Your task to perform on an android device: visit the assistant section in the google photos Image 0: 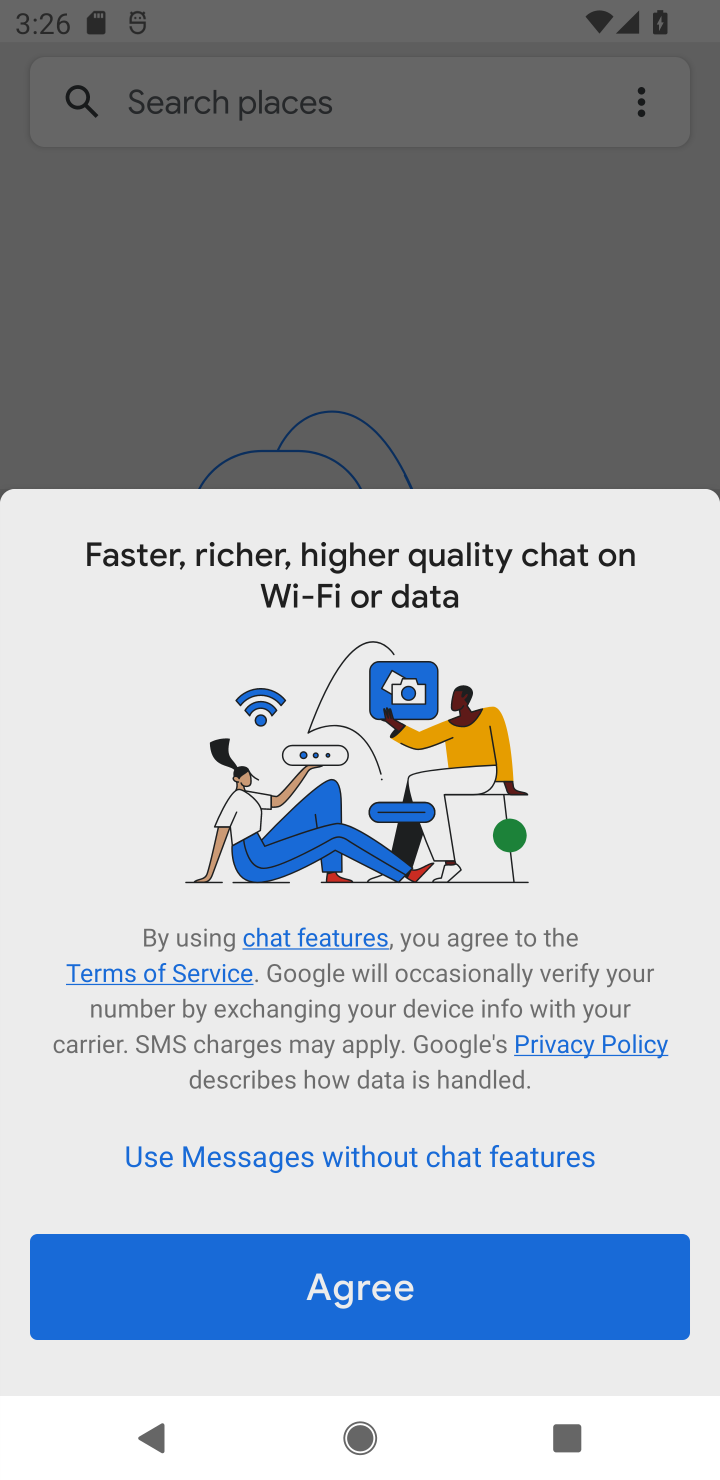
Step 0: press back button
Your task to perform on an android device: visit the assistant section in the google photos Image 1: 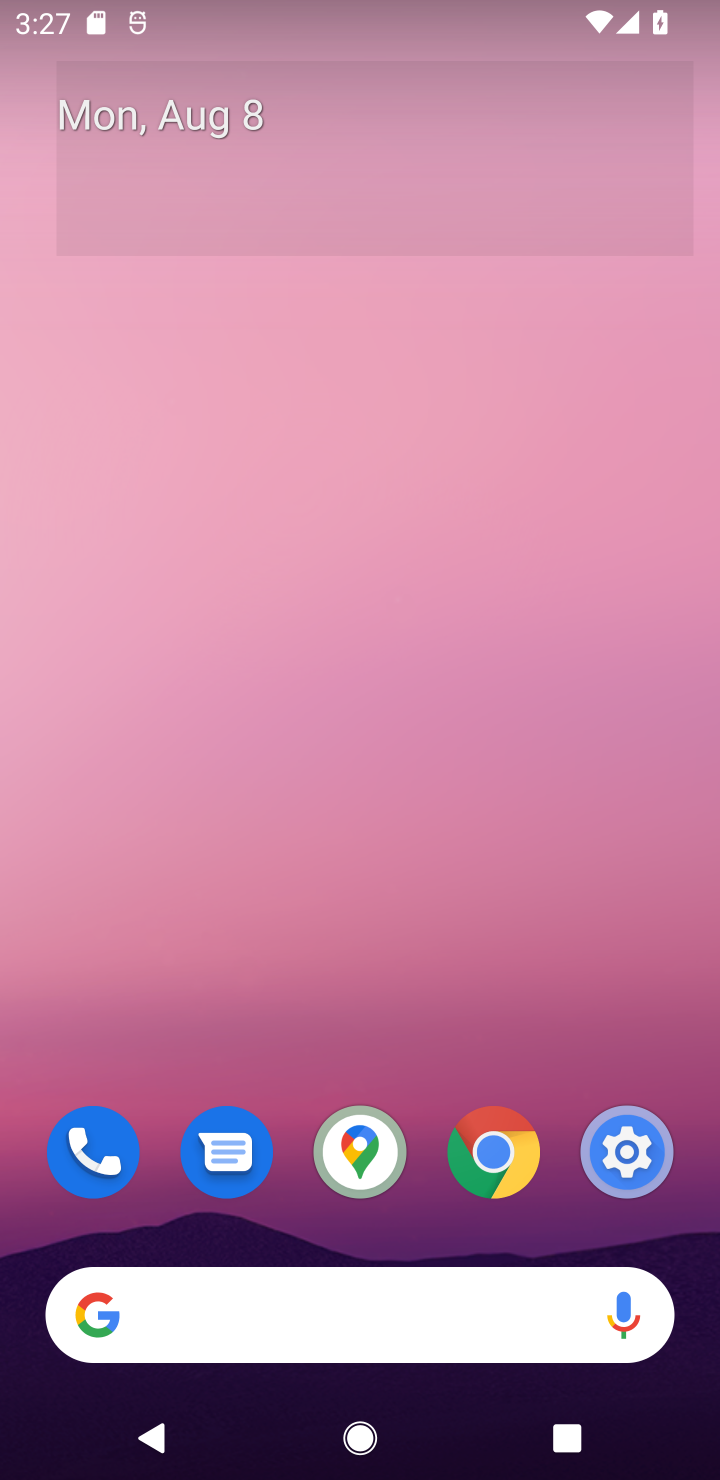
Step 1: drag from (316, 1232) to (332, 220)
Your task to perform on an android device: visit the assistant section in the google photos Image 2: 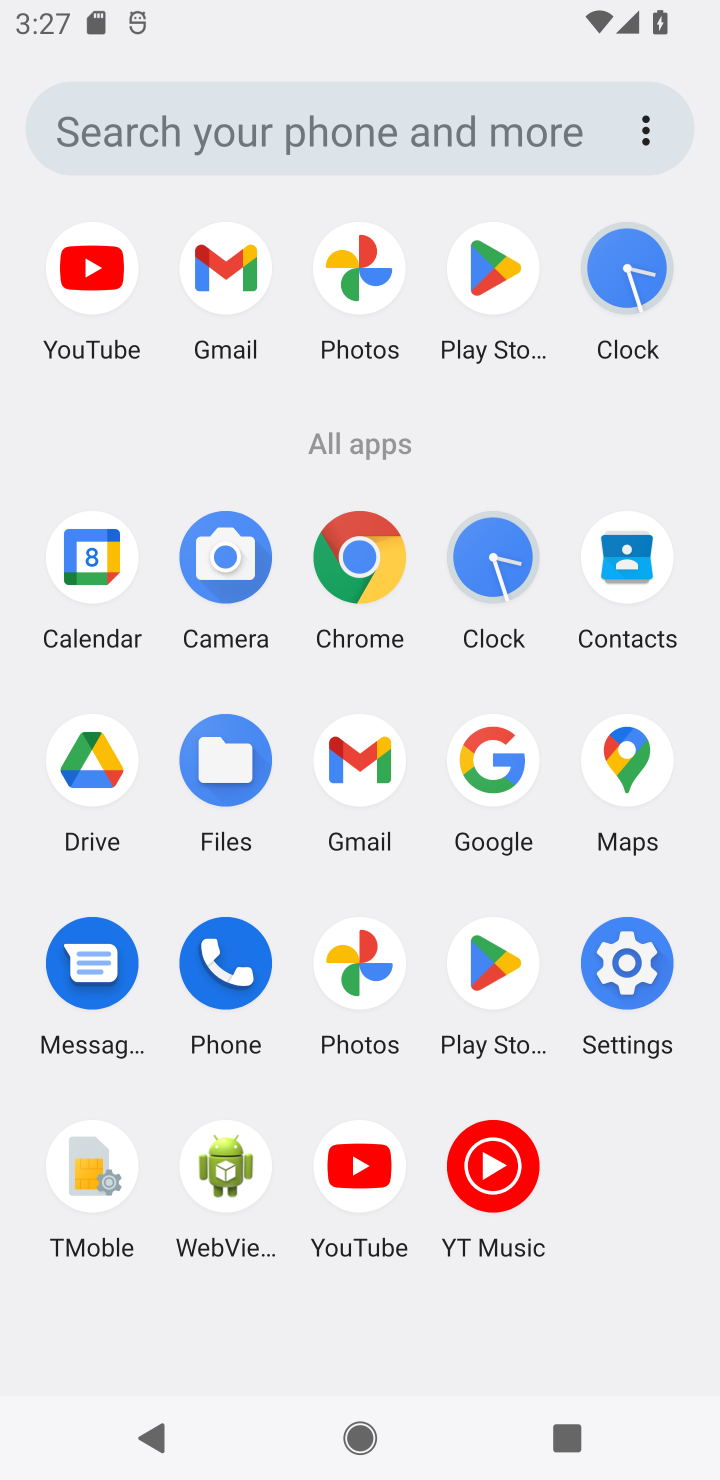
Step 2: click (342, 988)
Your task to perform on an android device: visit the assistant section in the google photos Image 3: 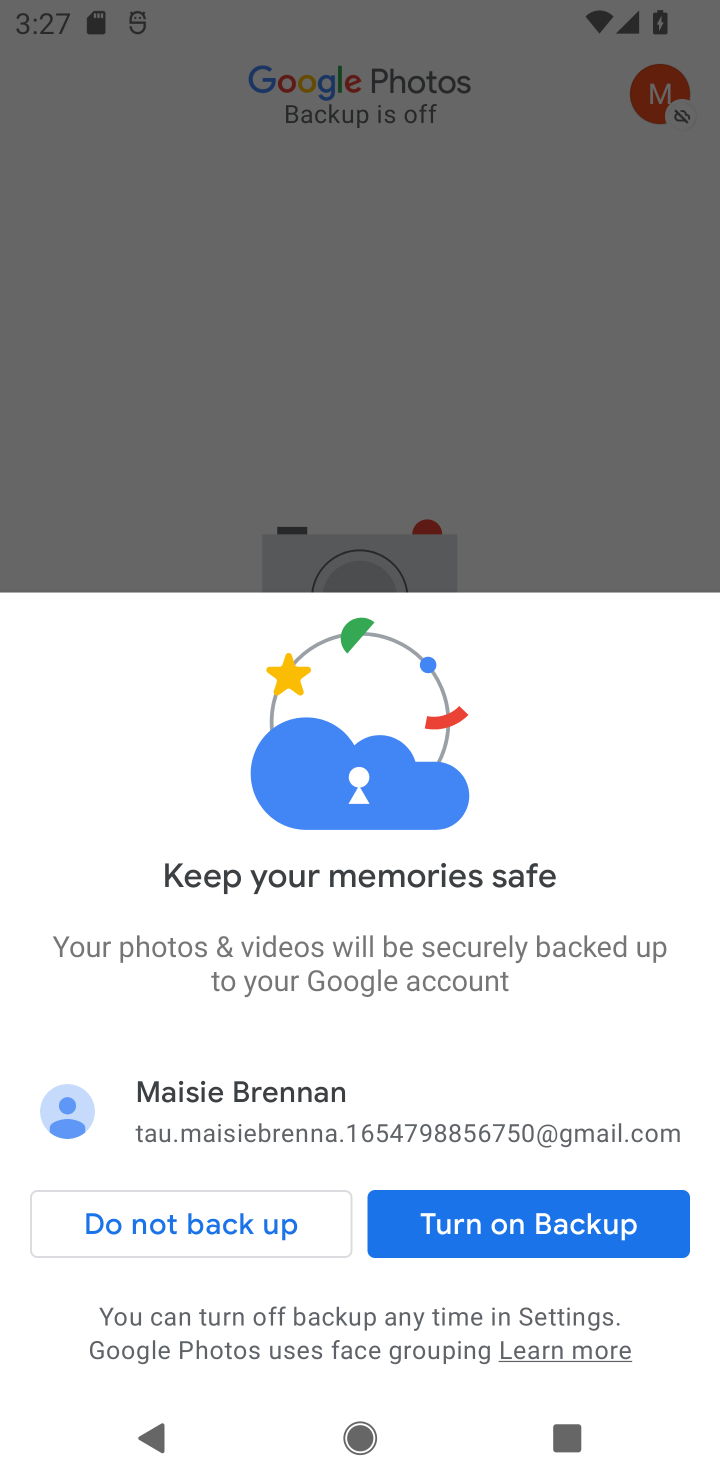
Step 3: click (225, 1226)
Your task to perform on an android device: visit the assistant section in the google photos Image 4: 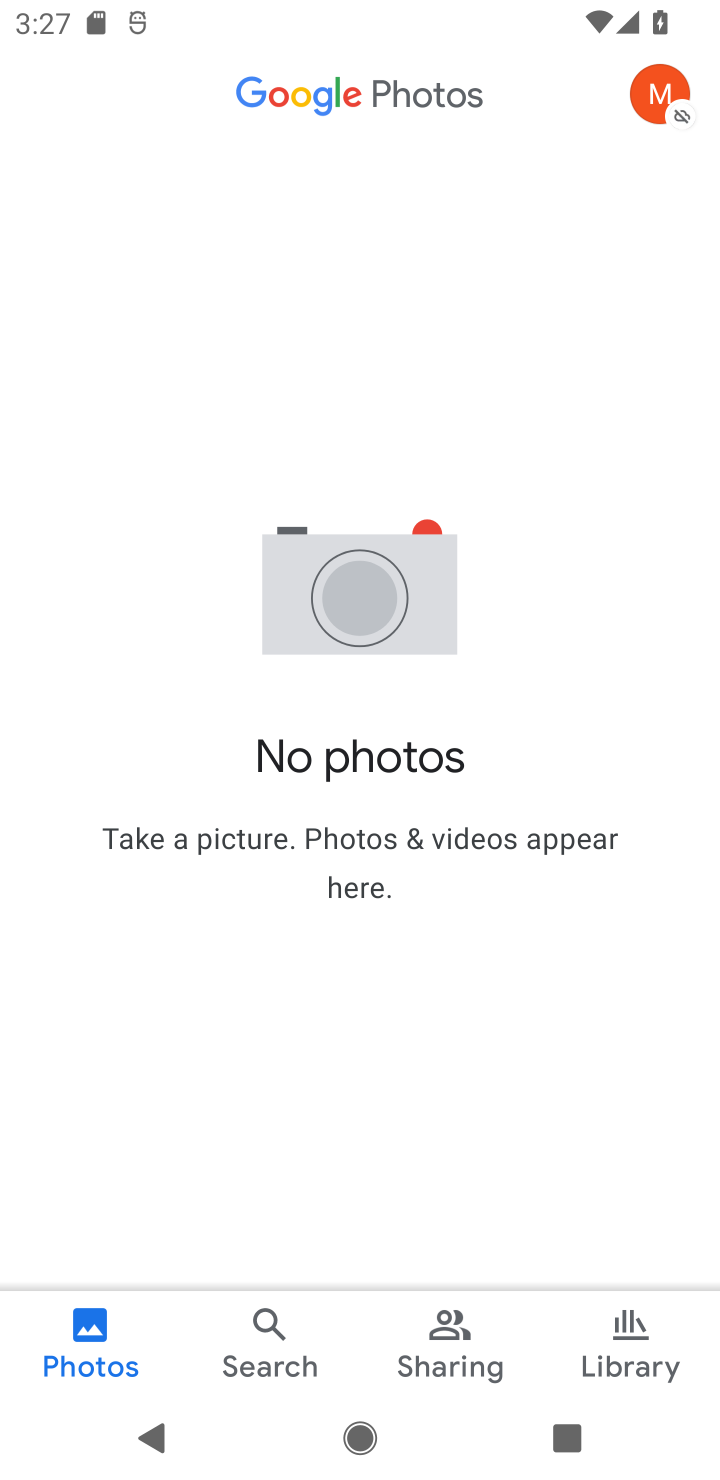
Step 4: task complete